Your task to perform on an android device: change text size in settings app Image 0: 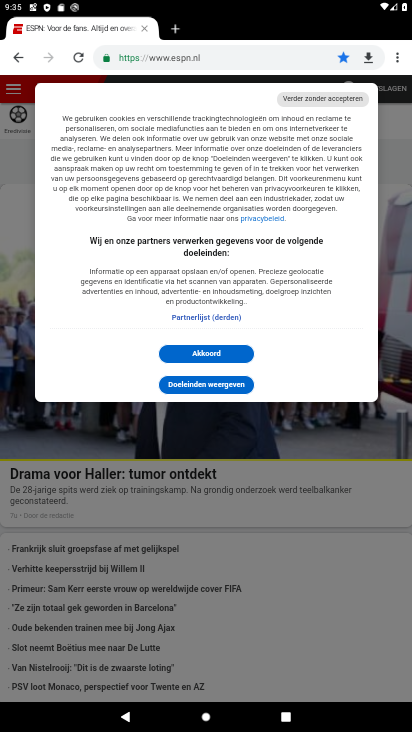
Step 0: press home button
Your task to perform on an android device: change text size in settings app Image 1: 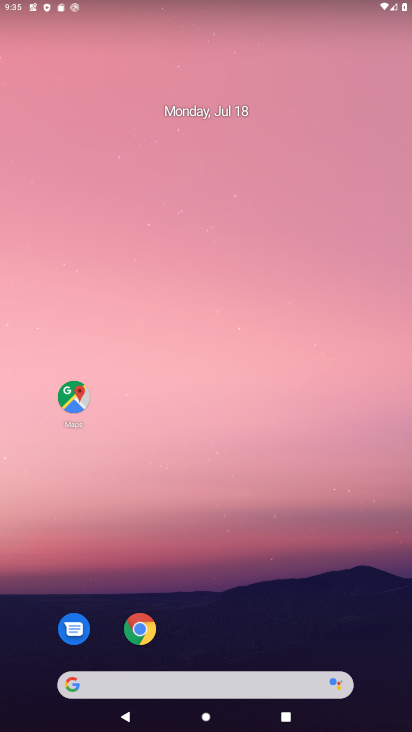
Step 1: drag from (321, 583) to (316, 115)
Your task to perform on an android device: change text size in settings app Image 2: 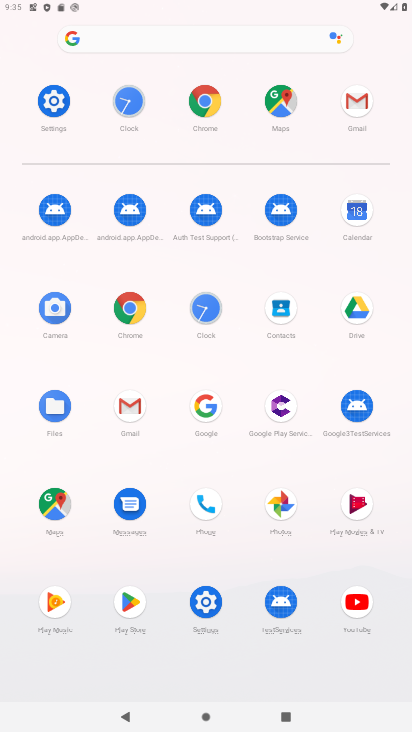
Step 2: click (55, 101)
Your task to perform on an android device: change text size in settings app Image 3: 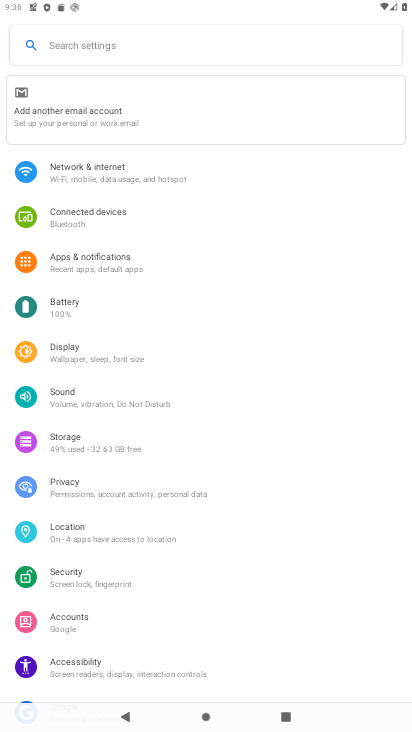
Step 3: click (59, 345)
Your task to perform on an android device: change text size in settings app Image 4: 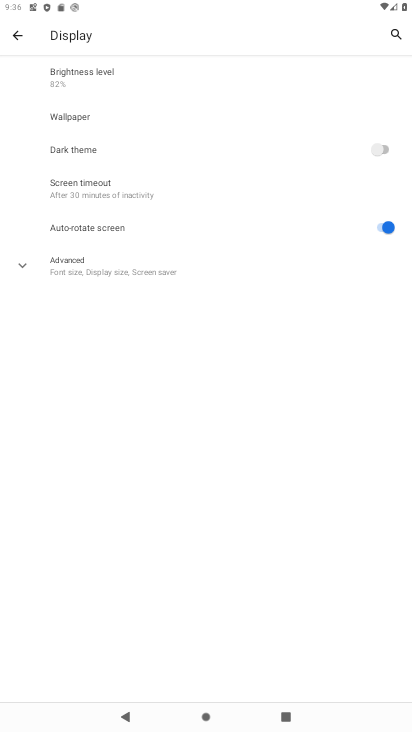
Step 4: click (95, 270)
Your task to perform on an android device: change text size in settings app Image 5: 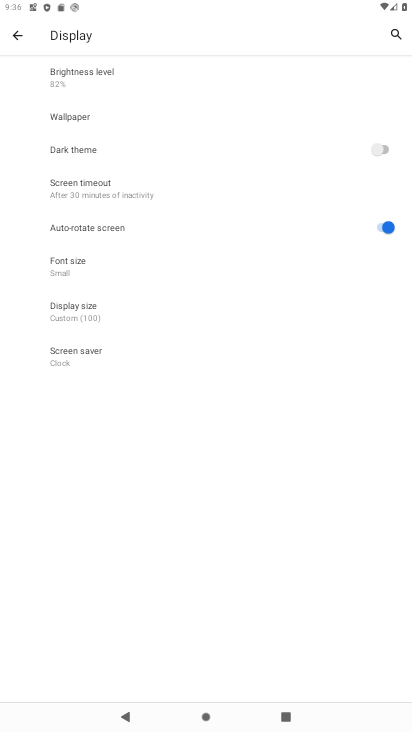
Step 5: click (77, 275)
Your task to perform on an android device: change text size in settings app Image 6: 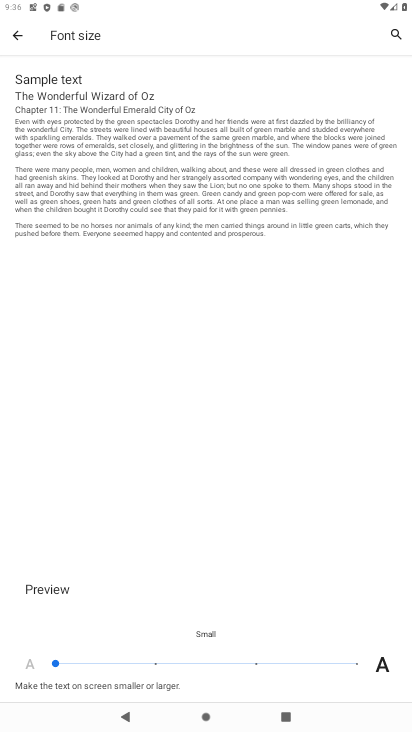
Step 6: click (151, 667)
Your task to perform on an android device: change text size in settings app Image 7: 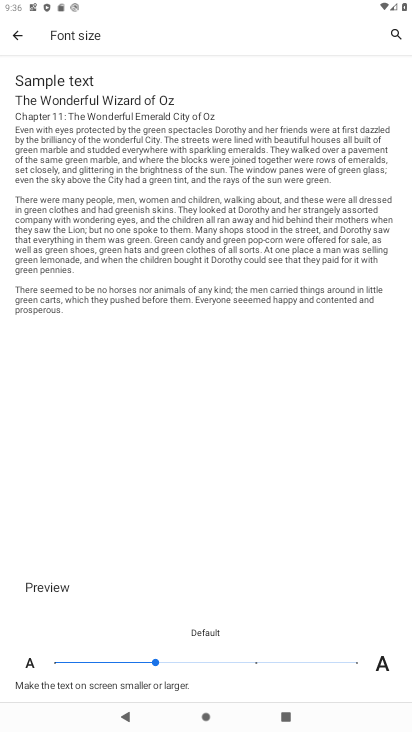
Step 7: task complete